Your task to perform on an android device: delete the emails in spam in the gmail app Image 0: 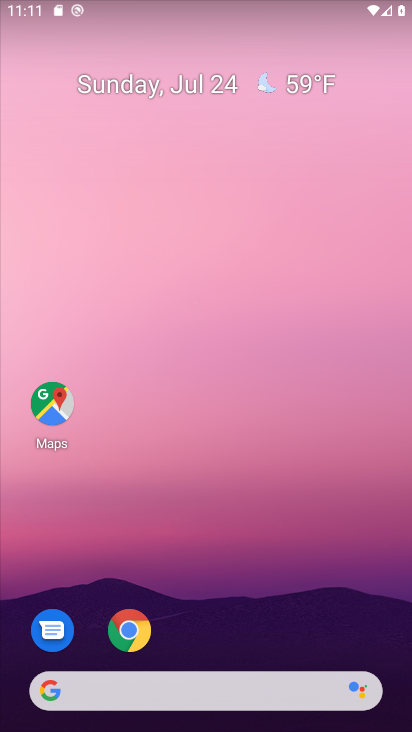
Step 0: drag from (223, 650) to (284, 3)
Your task to perform on an android device: delete the emails in spam in the gmail app Image 1: 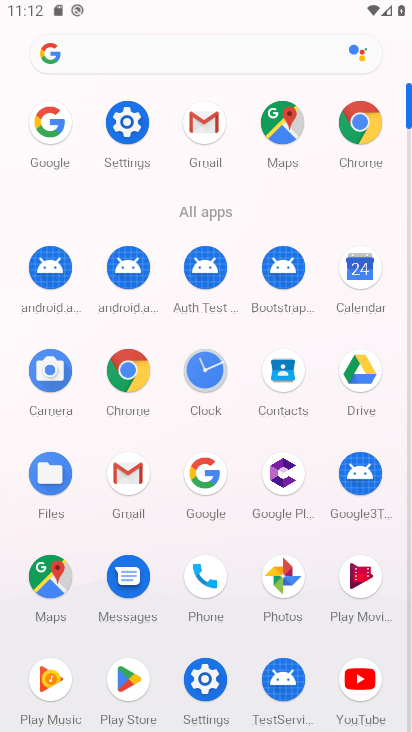
Step 1: click (204, 116)
Your task to perform on an android device: delete the emails in spam in the gmail app Image 2: 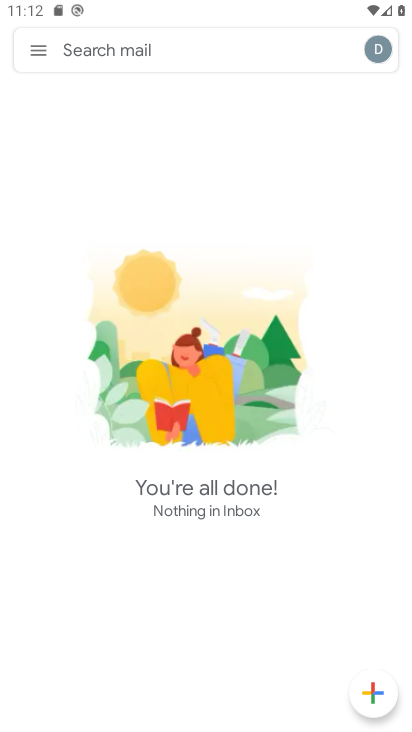
Step 2: click (34, 39)
Your task to perform on an android device: delete the emails in spam in the gmail app Image 3: 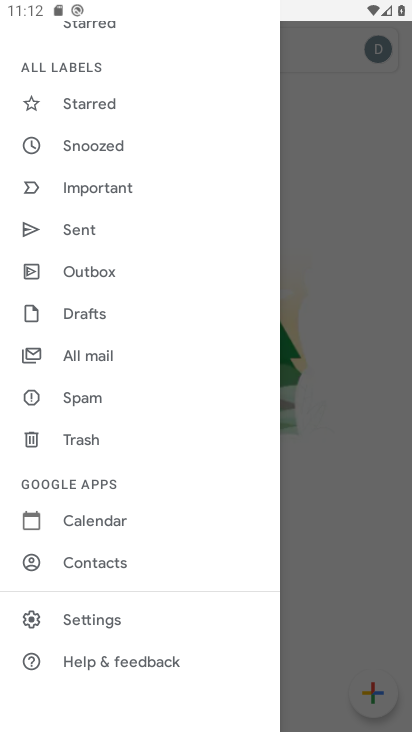
Step 3: click (92, 399)
Your task to perform on an android device: delete the emails in spam in the gmail app Image 4: 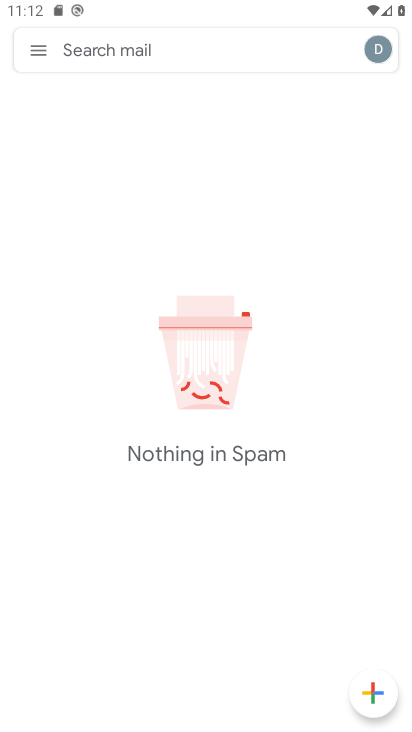
Step 4: task complete